Your task to perform on an android device: star an email in the gmail app Image 0: 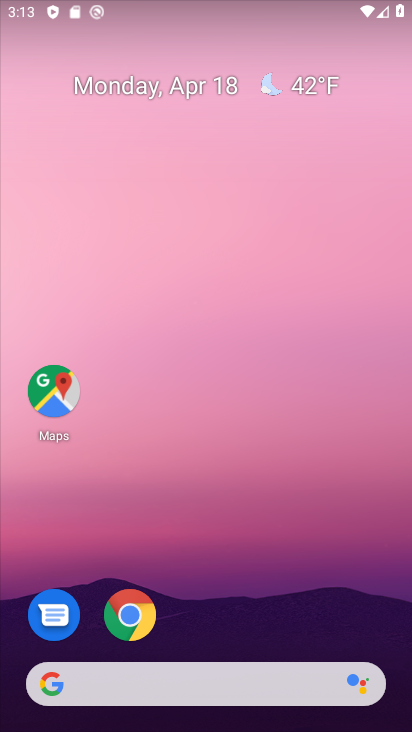
Step 0: drag from (328, 583) to (293, 50)
Your task to perform on an android device: star an email in the gmail app Image 1: 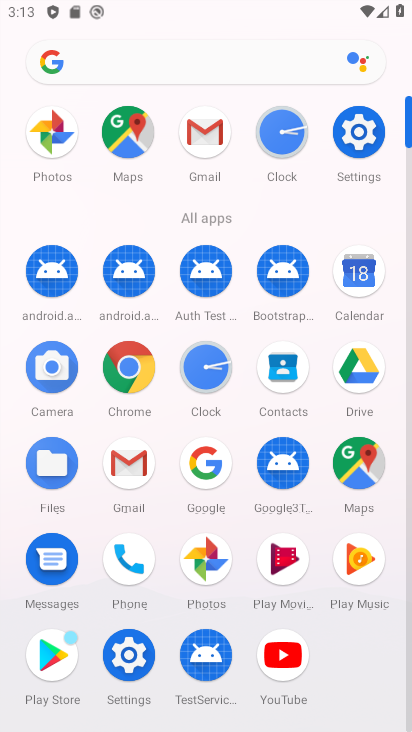
Step 1: click (217, 144)
Your task to perform on an android device: star an email in the gmail app Image 2: 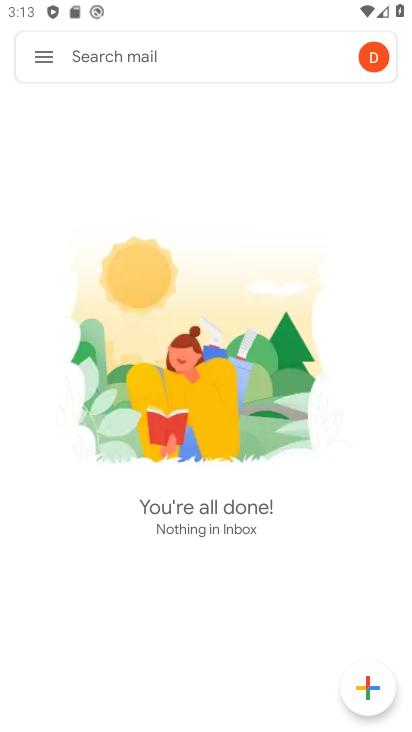
Step 2: task complete